Your task to perform on an android device: Set an alarm for 7pm Image 0: 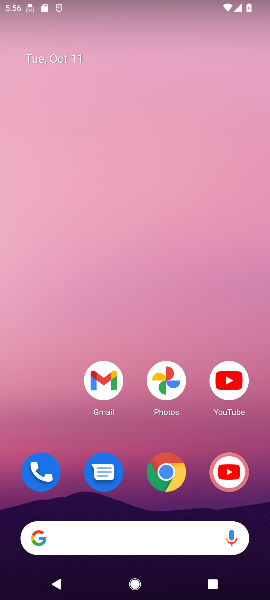
Step 0: click (194, 19)
Your task to perform on an android device: Set an alarm for 7pm Image 1: 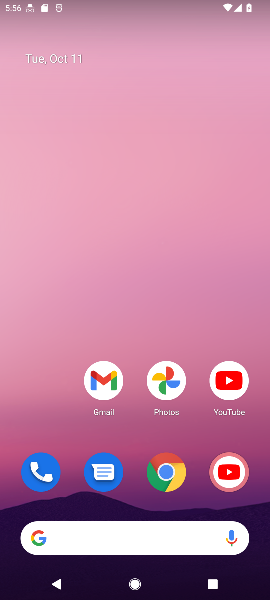
Step 1: click (175, 144)
Your task to perform on an android device: Set an alarm for 7pm Image 2: 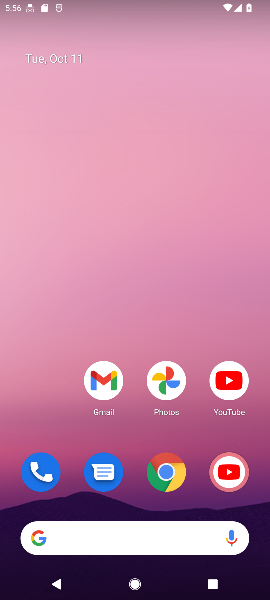
Step 2: drag from (139, 459) to (161, 96)
Your task to perform on an android device: Set an alarm for 7pm Image 3: 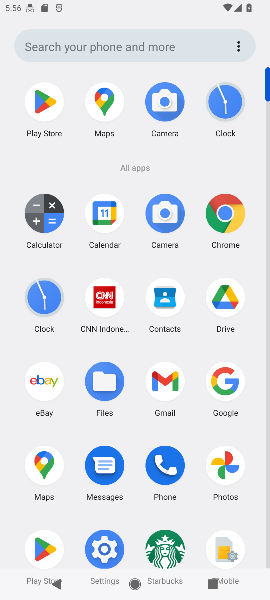
Step 3: click (215, 113)
Your task to perform on an android device: Set an alarm for 7pm Image 4: 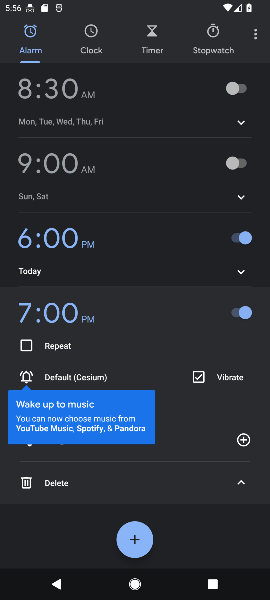
Step 4: task complete